Your task to perform on an android device: Go to wifi settings Image 0: 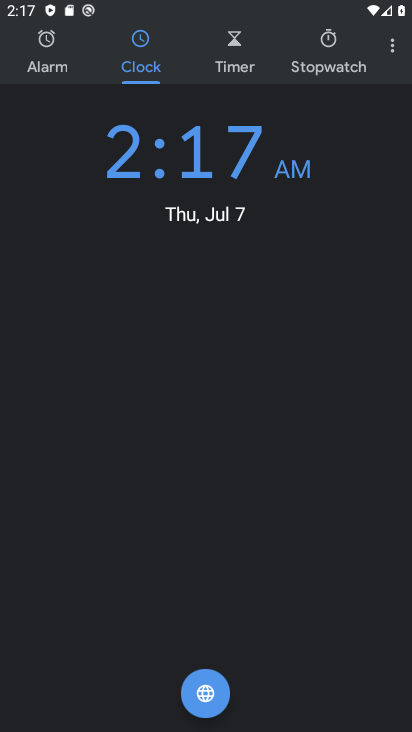
Step 0: press back button
Your task to perform on an android device: Go to wifi settings Image 1: 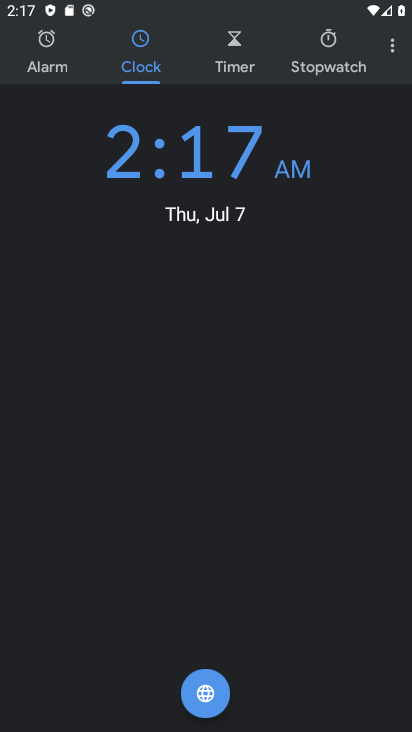
Step 1: press back button
Your task to perform on an android device: Go to wifi settings Image 2: 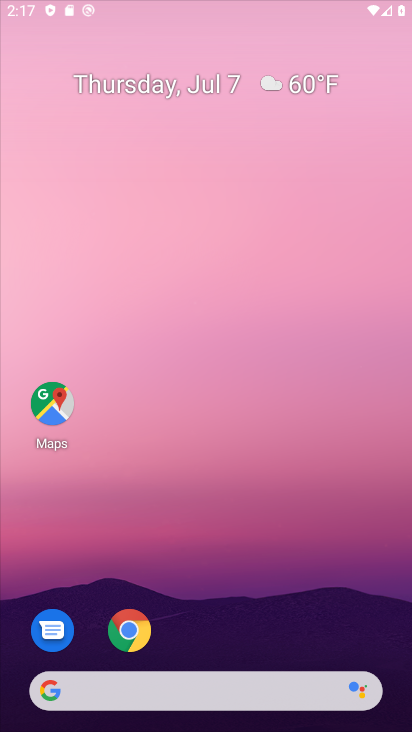
Step 2: press back button
Your task to perform on an android device: Go to wifi settings Image 3: 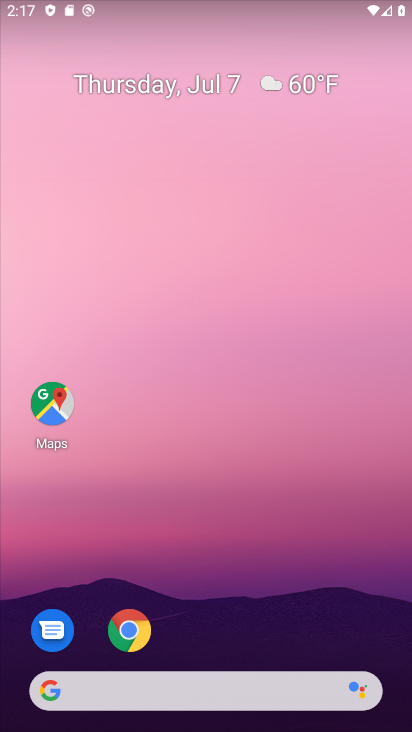
Step 3: drag from (250, 698) to (348, 16)
Your task to perform on an android device: Go to wifi settings Image 4: 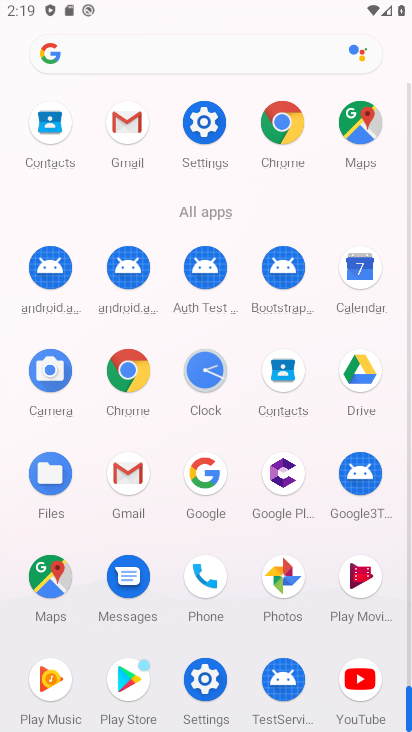
Step 4: click (170, 128)
Your task to perform on an android device: Go to wifi settings Image 5: 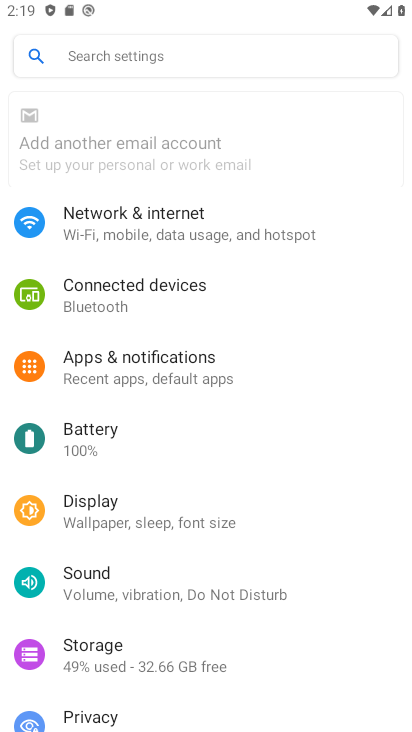
Step 5: click (193, 135)
Your task to perform on an android device: Go to wifi settings Image 6: 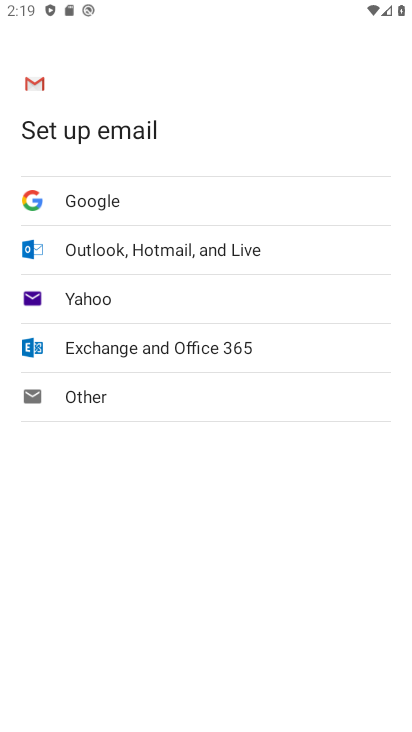
Step 6: task complete